Your task to perform on an android device: change your default location settings in chrome Image 0: 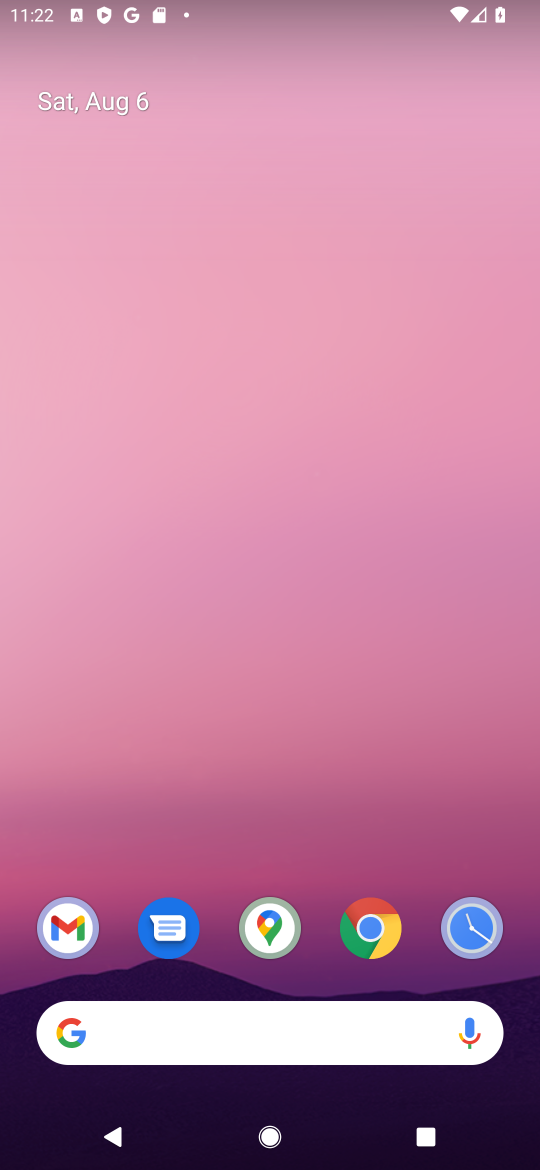
Step 0: click (373, 935)
Your task to perform on an android device: change your default location settings in chrome Image 1: 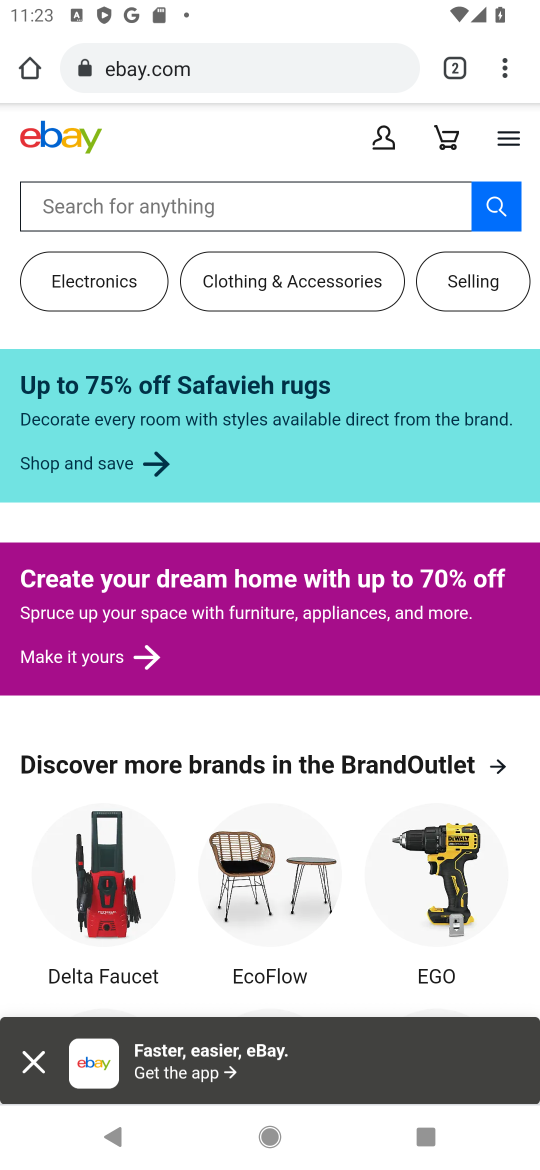
Step 1: click (506, 67)
Your task to perform on an android device: change your default location settings in chrome Image 2: 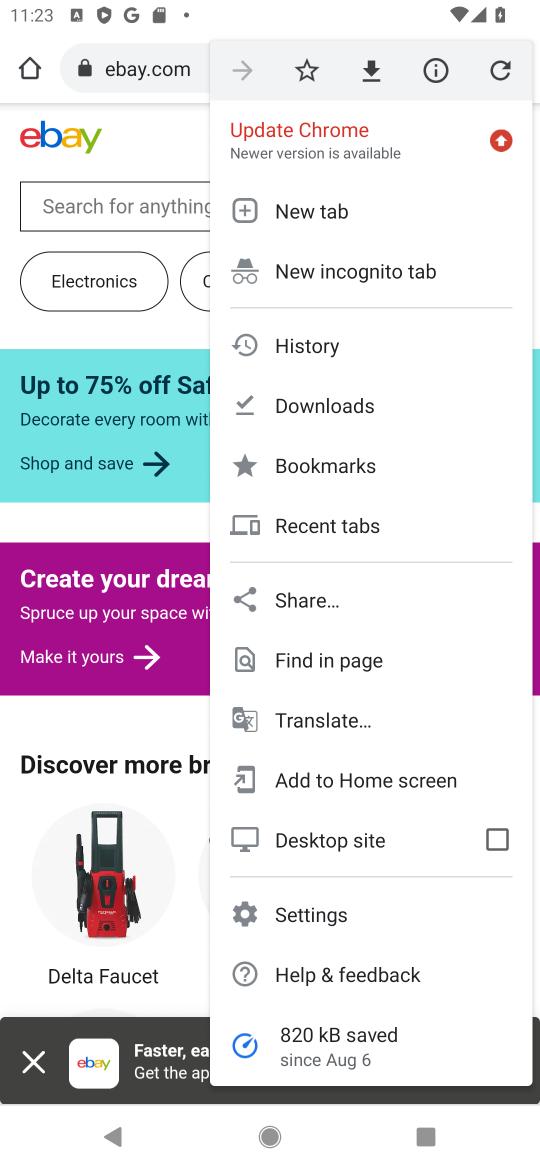
Step 2: click (337, 916)
Your task to perform on an android device: change your default location settings in chrome Image 3: 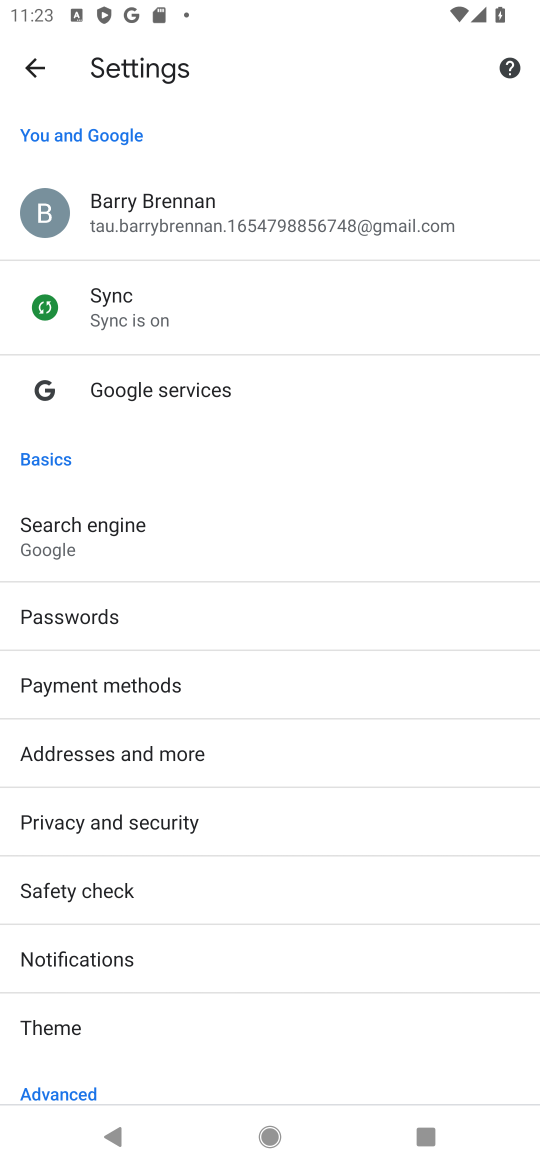
Step 3: drag from (358, 470) to (297, 130)
Your task to perform on an android device: change your default location settings in chrome Image 4: 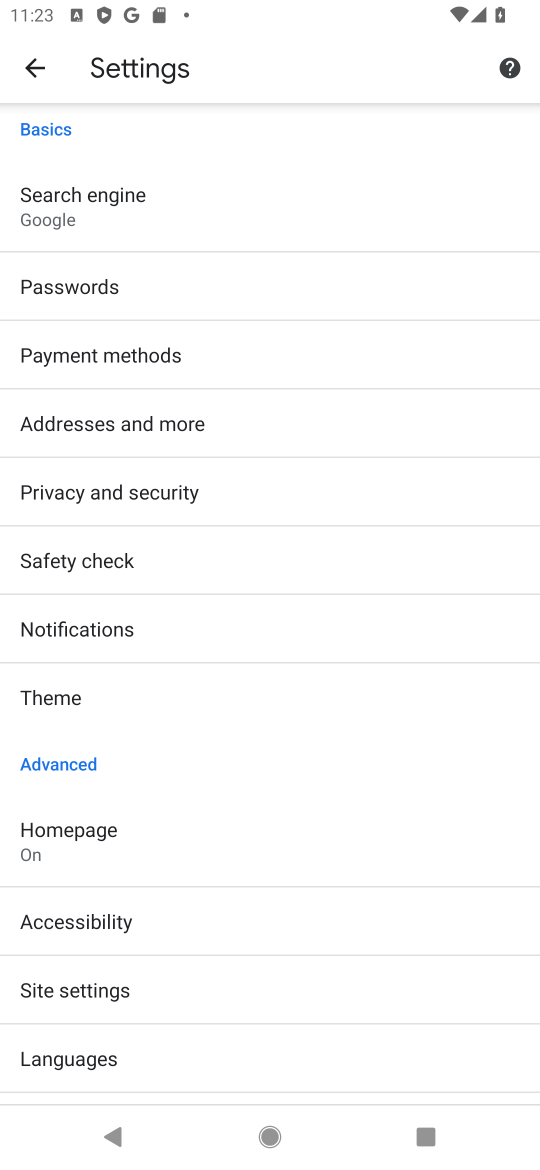
Step 4: drag from (241, 840) to (213, 419)
Your task to perform on an android device: change your default location settings in chrome Image 5: 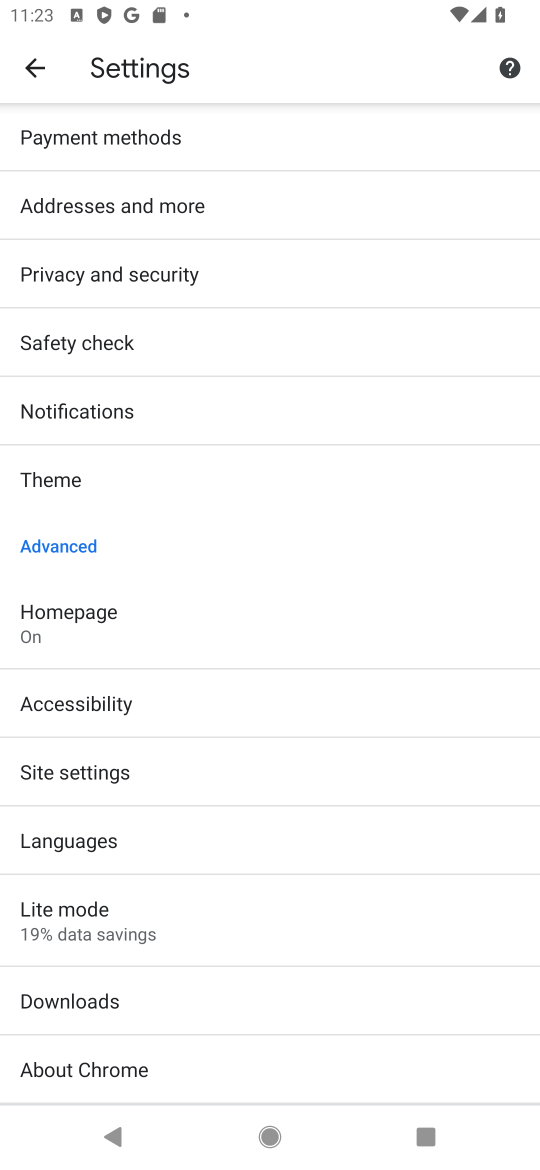
Step 5: click (82, 778)
Your task to perform on an android device: change your default location settings in chrome Image 6: 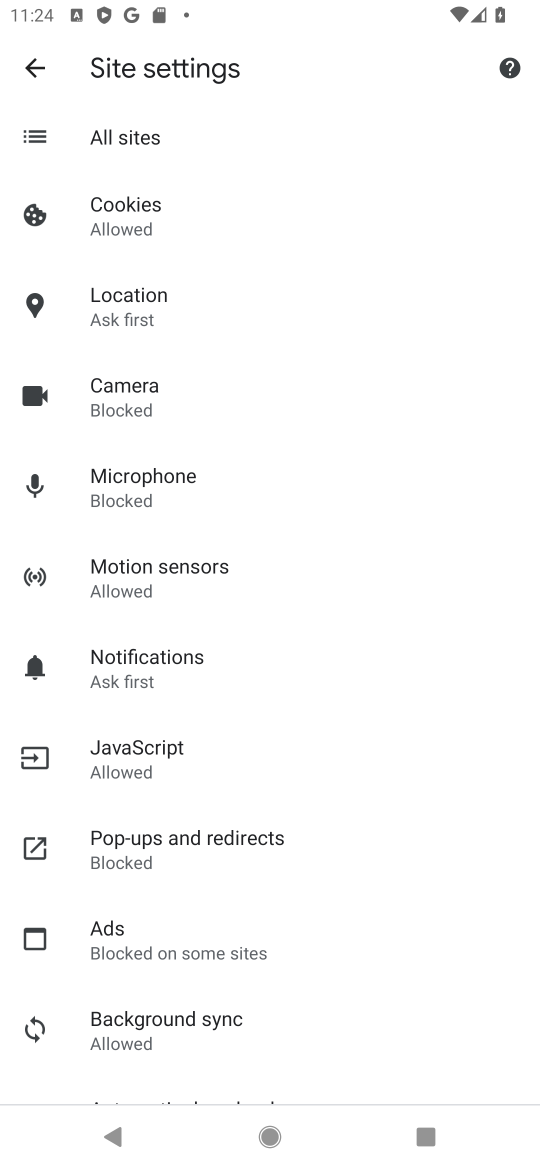
Step 6: click (159, 309)
Your task to perform on an android device: change your default location settings in chrome Image 7: 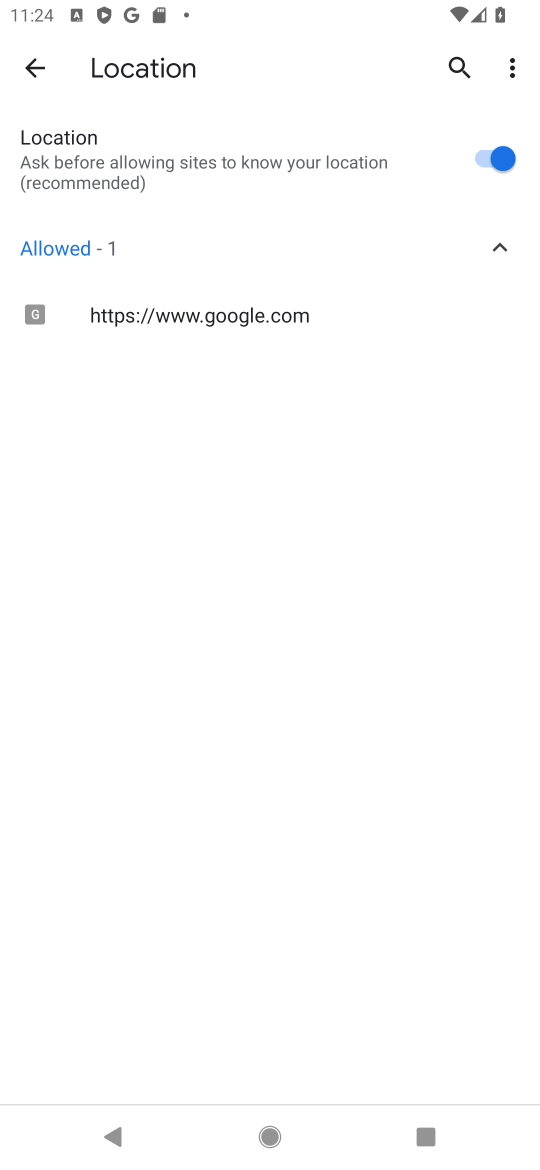
Step 7: click (492, 156)
Your task to perform on an android device: change your default location settings in chrome Image 8: 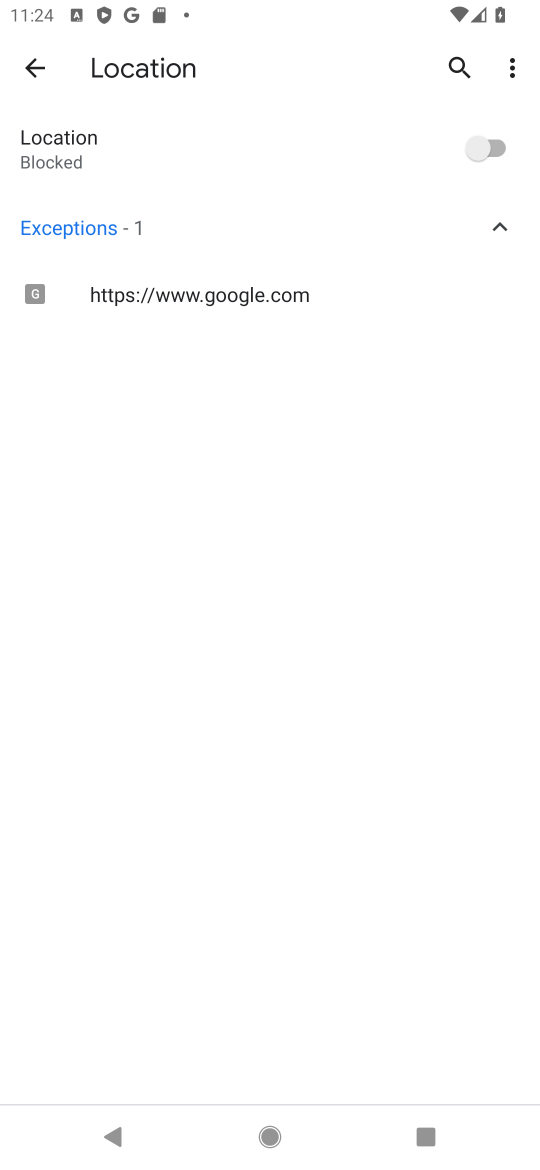
Step 8: task complete